Your task to perform on an android device: delete a single message in the gmail app Image 0: 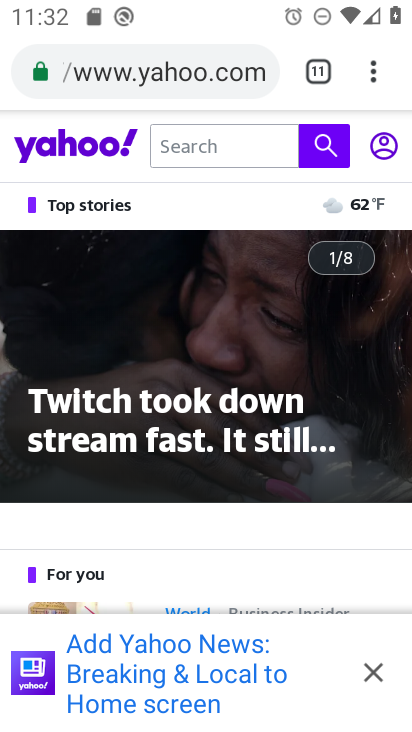
Step 0: press home button
Your task to perform on an android device: delete a single message in the gmail app Image 1: 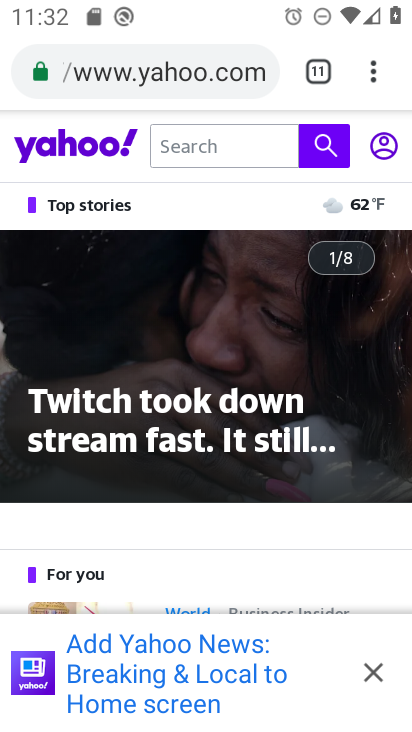
Step 1: press home button
Your task to perform on an android device: delete a single message in the gmail app Image 2: 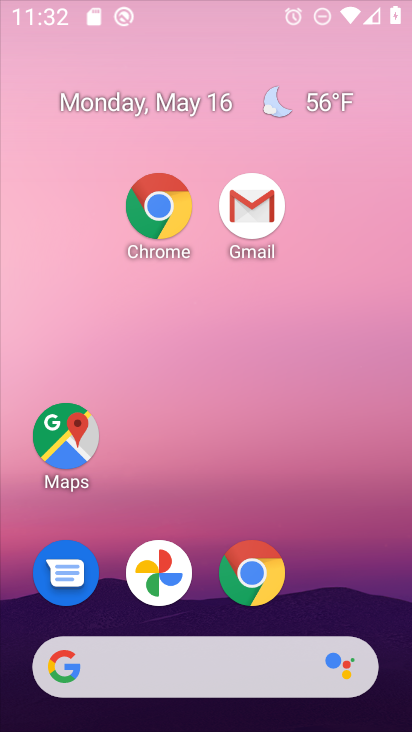
Step 2: press home button
Your task to perform on an android device: delete a single message in the gmail app Image 3: 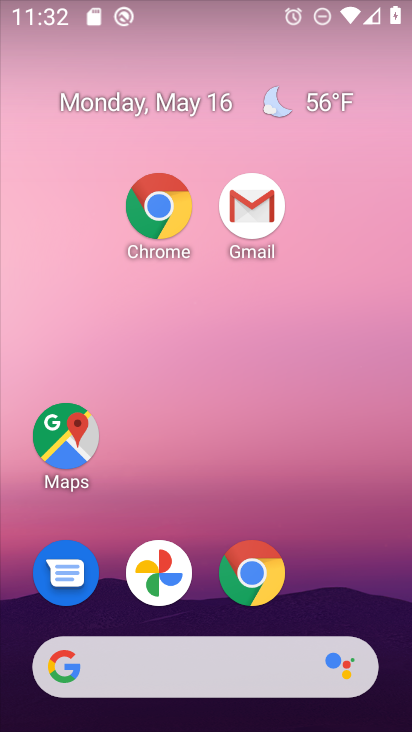
Step 3: drag from (255, 570) to (84, 0)
Your task to perform on an android device: delete a single message in the gmail app Image 4: 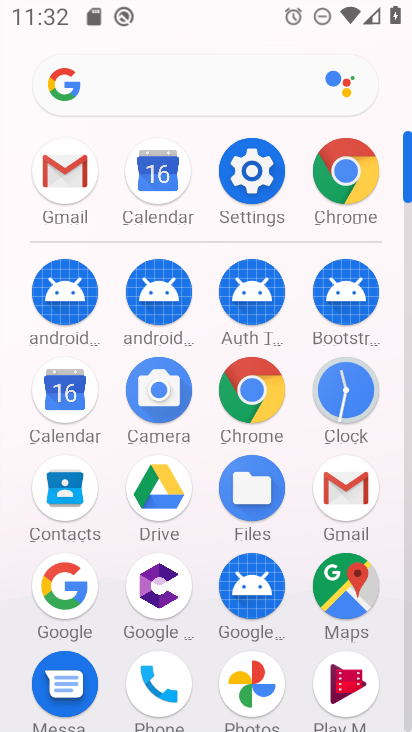
Step 4: click (350, 495)
Your task to perform on an android device: delete a single message in the gmail app Image 5: 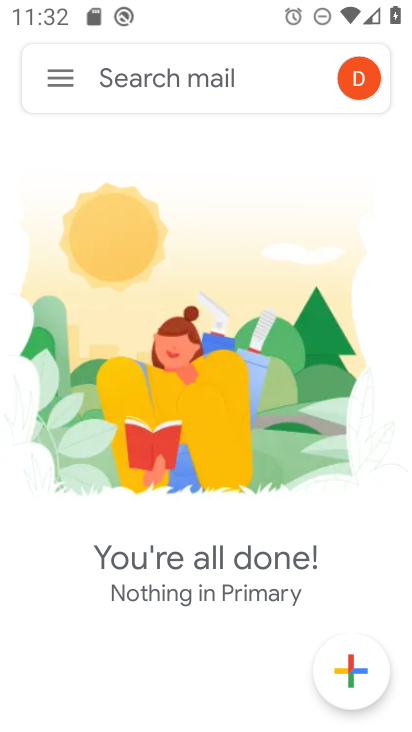
Step 5: click (46, 76)
Your task to perform on an android device: delete a single message in the gmail app Image 6: 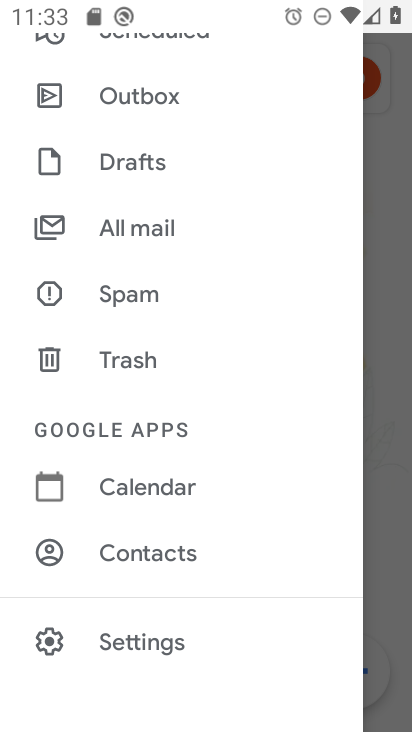
Step 6: click (119, 224)
Your task to perform on an android device: delete a single message in the gmail app Image 7: 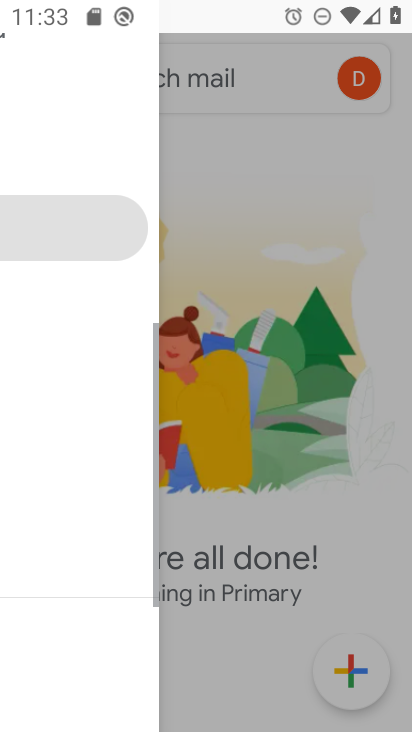
Step 7: click (131, 222)
Your task to perform on an android device: delete a single message in the gmail app Image 8: 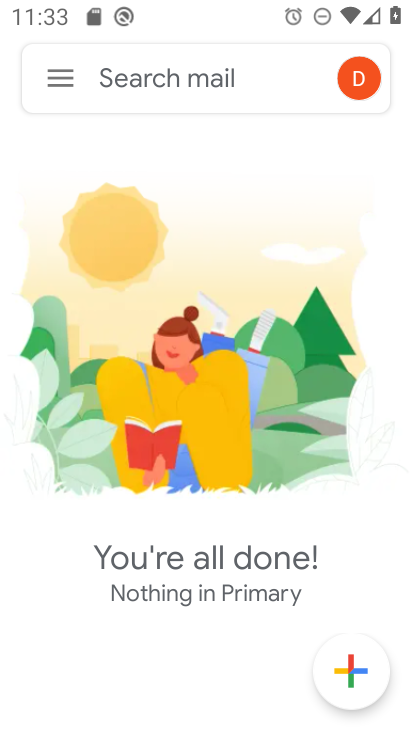
Step 8: click (136, 242)
Your task to perform on an android device: delete a single message in the gmail app Image 9: 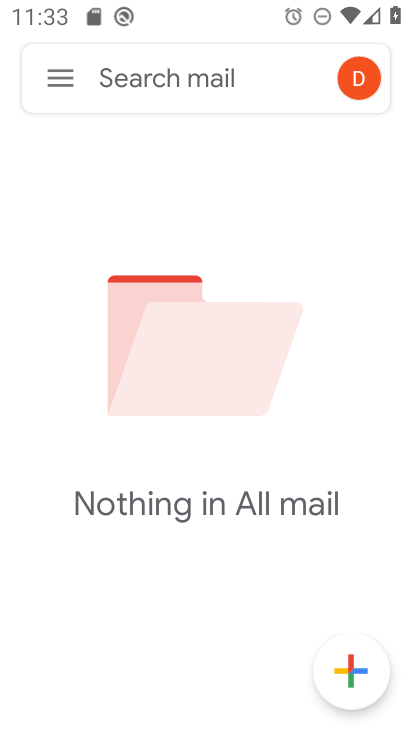
Step 9: task complete